Your task to perform on an android device: Go to CNN.com Image 0: 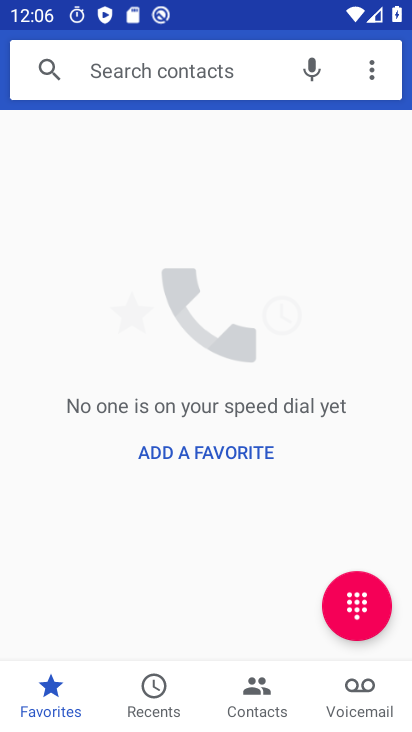
Step 0: press back button
Your task to perform on an android device: Go to CNN.com Image 1: 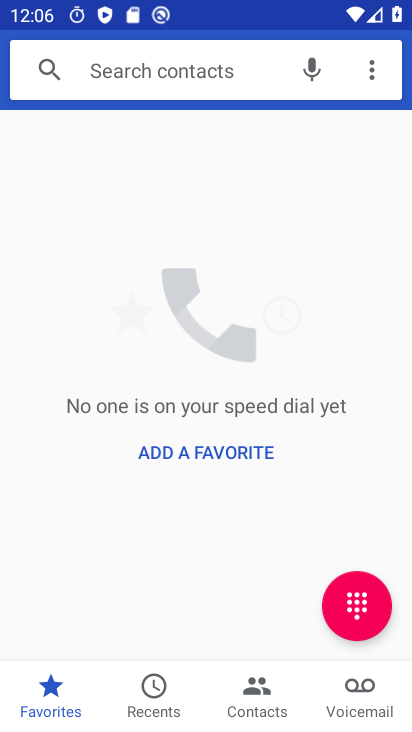
Step 1: press back button
Your task to perform on an android device: Go to CNN.com Image 2: 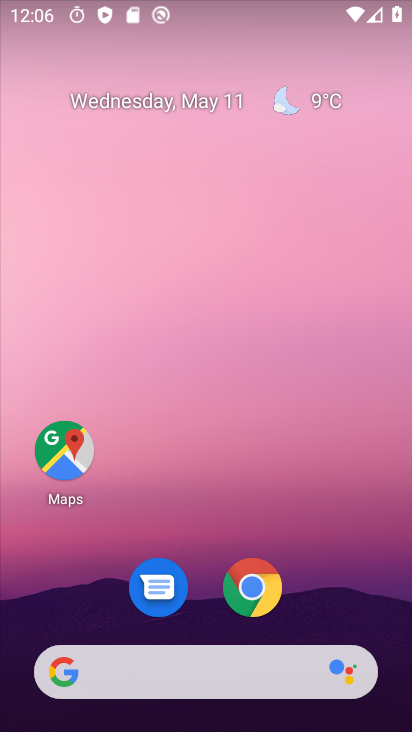
Step 2: drag from (349, 625) to (151, 14)
Your task to perform on an android device: Go to CNN.com Image 3: 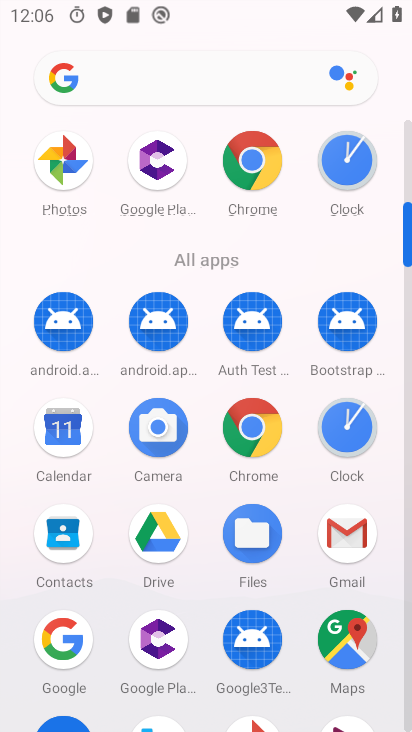
Step 3: click (262, 151)
Your task to perform on an android device: Go to CNN.com Image 4: 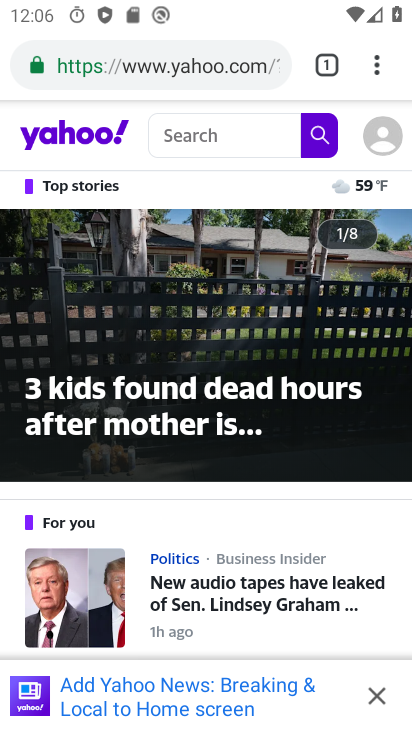
Step 4: drag from (371, 65) to (133, 122)
Your task to perform on an android device: Go to CNN.com Image 5: 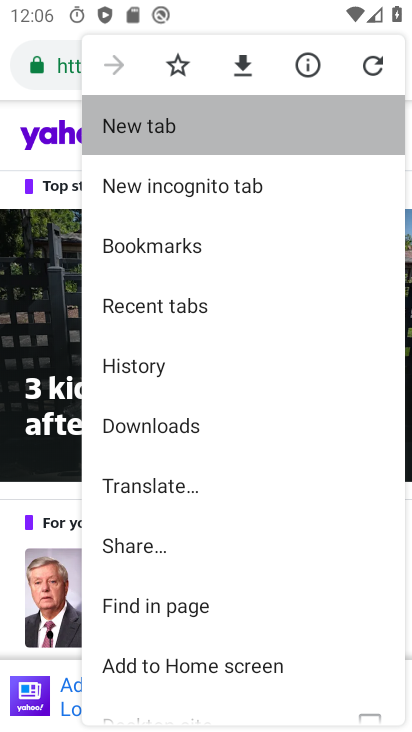
Step 5: click (133, 122)
Your task to perform on an android device: Go to CNN.com Image 6: 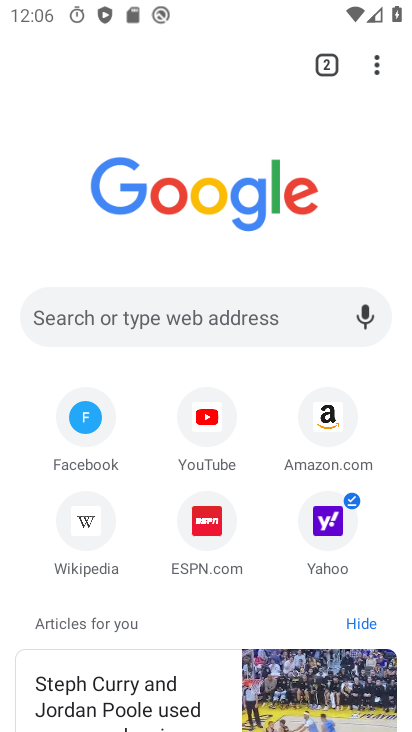
Step 6: click (88, 310)
Your task to perform on an android device: Go to CNN.com Image 7: 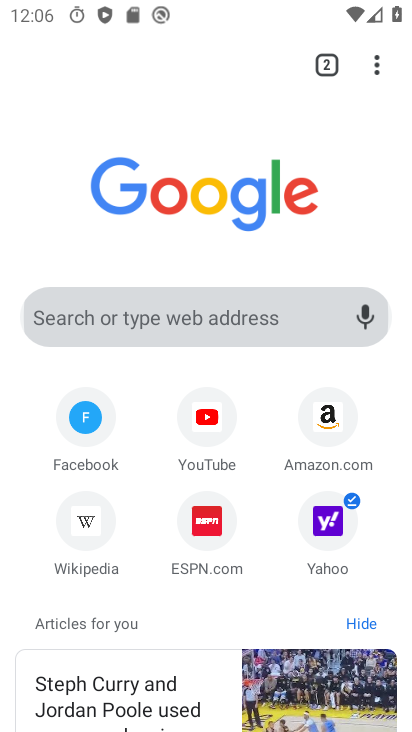
Step 7: click (84, 297)
Your task to perform on an android device: Go to CNN.com Image 8: 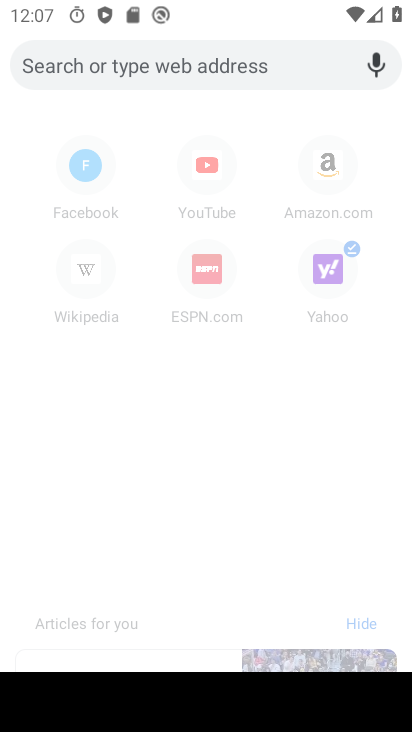
Step 8: type "cnn.com"
Your task to perform on an android device: Go to CNN.com Image 9: 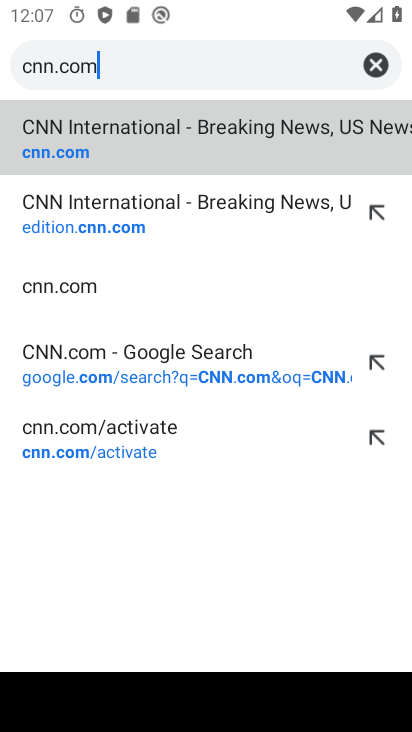
Step 9: click (48, 152)
Your task to perform on an android device: Go to CNN.com Image 10: 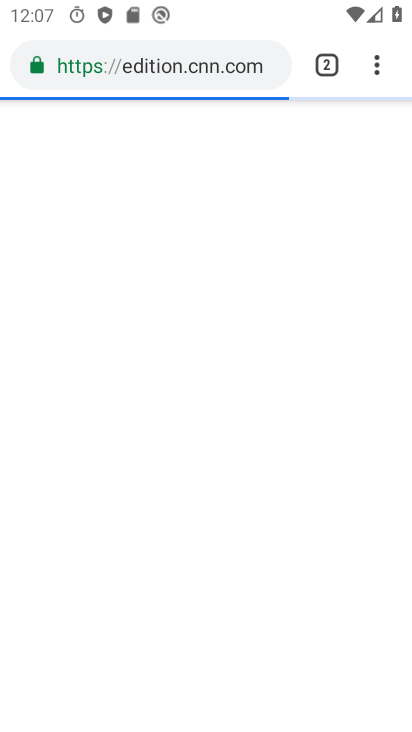
Step 10: task complete